Your task to perform on an android device: check storage Image 0: 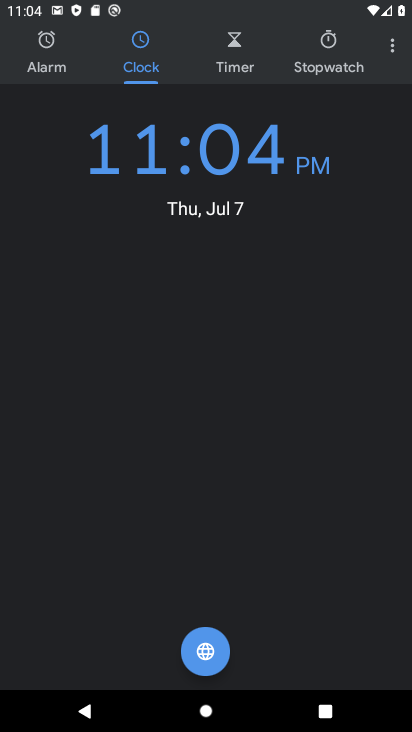
Step 0: press home button
Your task to perform on an android device: check storage Image 1: 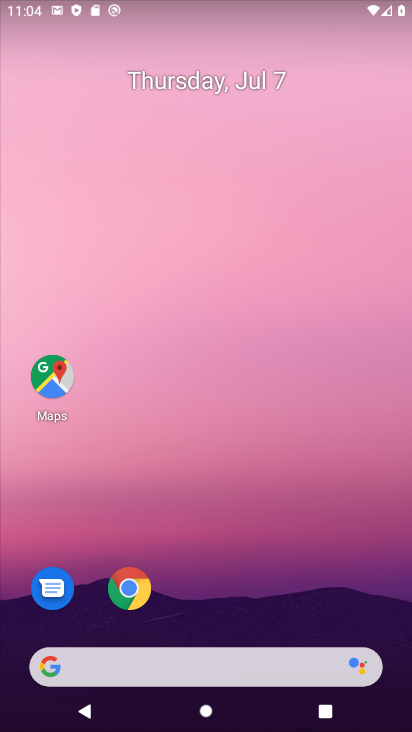
Step 1: drag from (210, 632) to (0, 305)
Your task to perform on an android device: check storage Image 2: 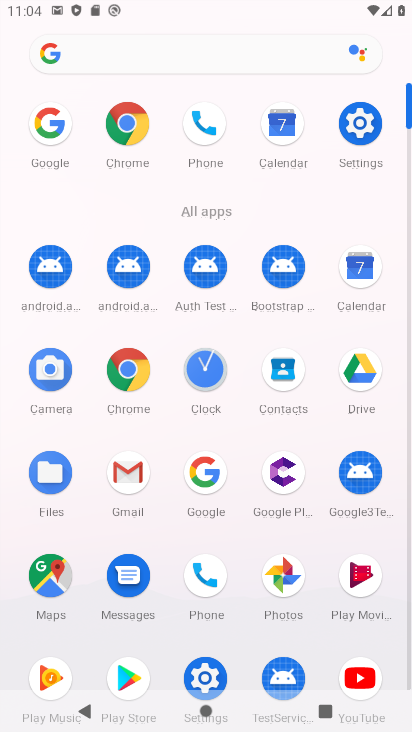
Step 2: click (349, 128)
Your task to perform on an android device: check storage Image 3: 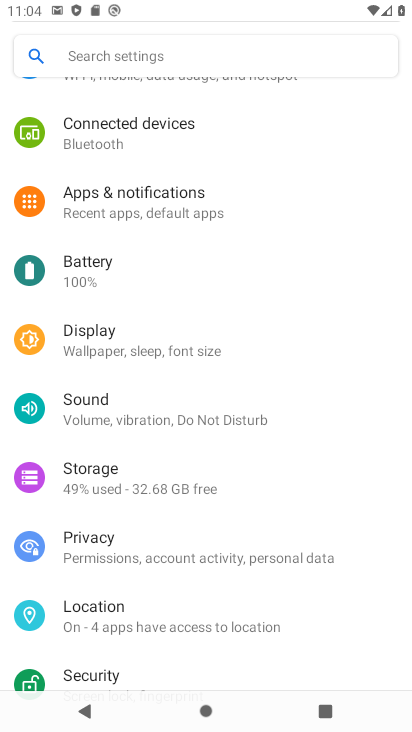
Step 3: click (138, 469)
Your task to perform on an android device: check storage Image 4: 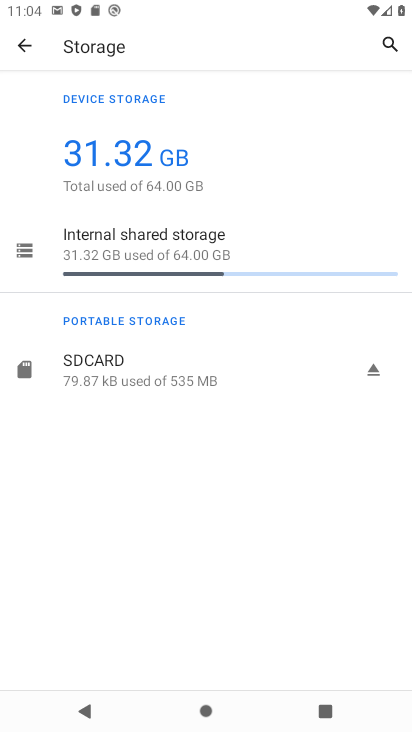
Step 4: task complete